Your task to perform on an android device: check out phone information Image 0: 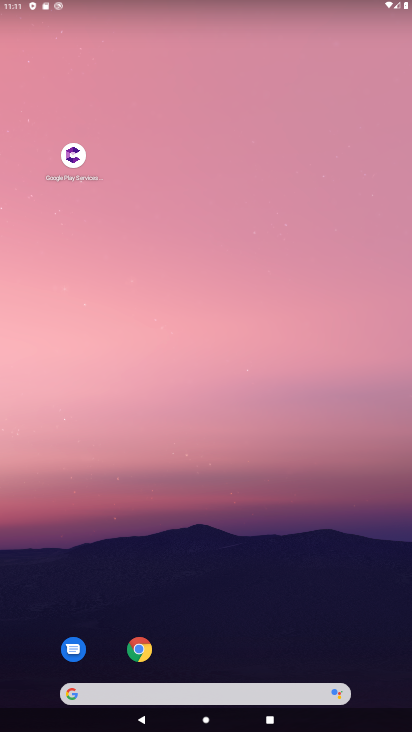
Step 0: drag from (189, 697) to (221, 65)
Your task to perform on an android device: check out phone information Image 1: 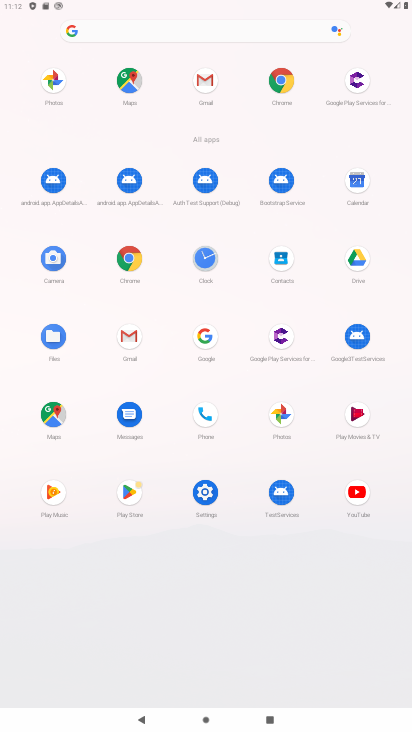
Step 1: click (204, 493)
Your task to perform on an android device: check out phone information Image 2: 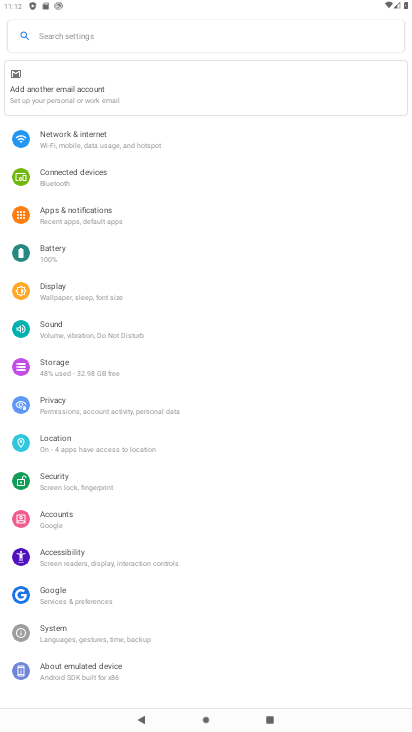
Step 2: click (106, 680)
Your task to perform on an android device: check out phone information Image 3: 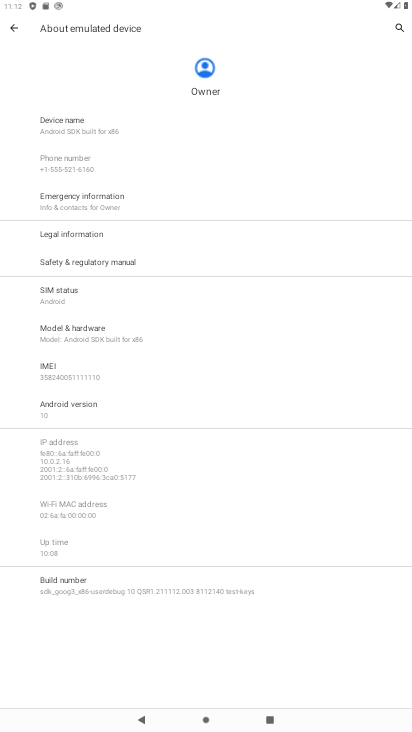
Step 3: task complete